Your task to perform on an android device: check storage Image 0: 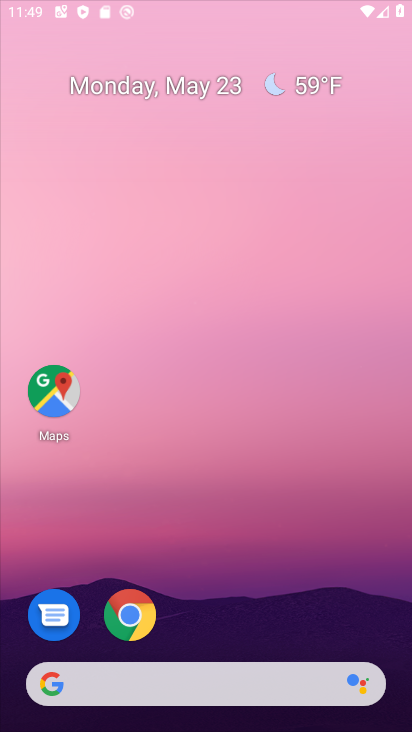
Step 0: press home button
Your task to perform on an android device: check storage Image 1: 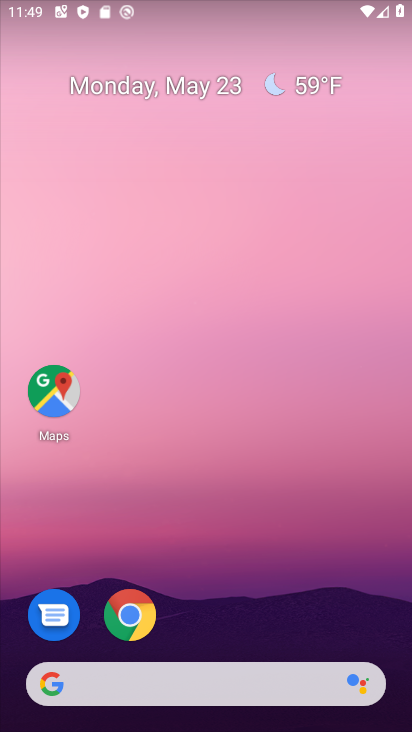
Step 1: drag from (257, 557) to (227, 22)
Your task to perform on an android device: check storage Image 2: 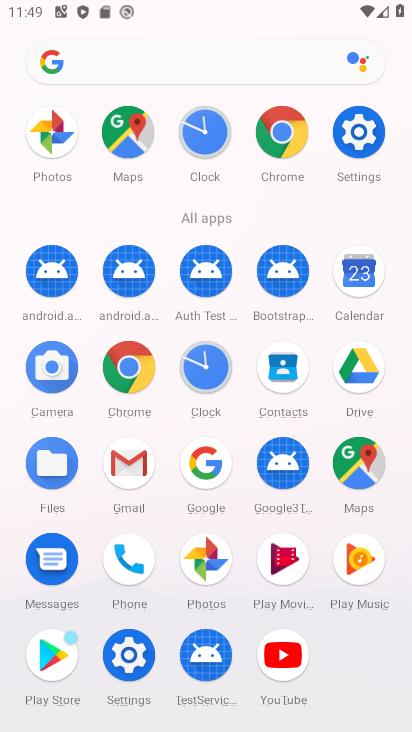
Step 2: drag from (14, 574) to (15, 223)
Your task to perform on an android device: check storage Image 3: 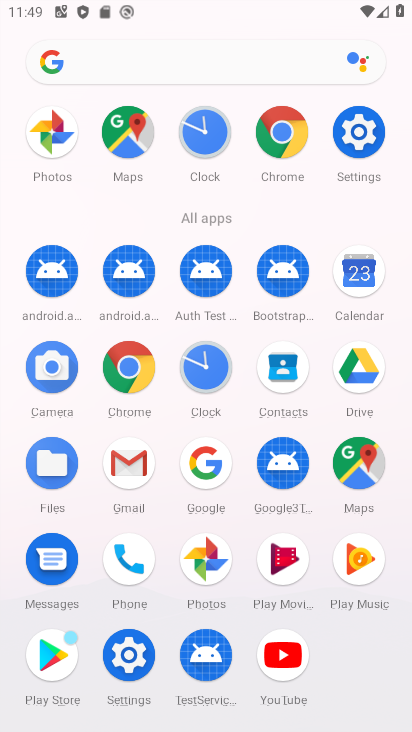
Step 3: click (129, 652)
Your task to perform on an android device: check storage Image 4: 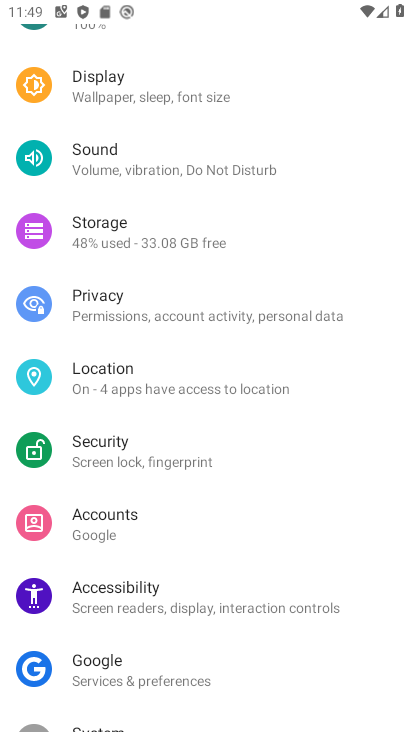
Step 4: drag from (207, 153) to (212, 559)
Your task to perform on an android device: check storage Image 5: 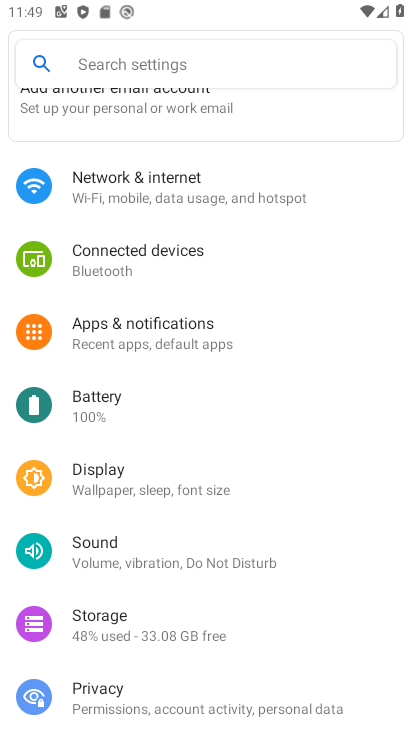
Step 5: drag from (200, 593) to (211, 179)
Your task to perform on an android device: check storage Image 6: 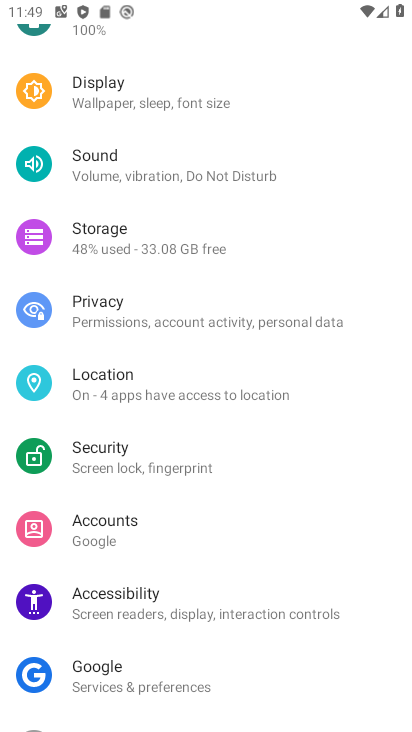
Step 6: drag from (155, 579) to (209, 159)
Your task to perform on an android device: check storage Image 7: 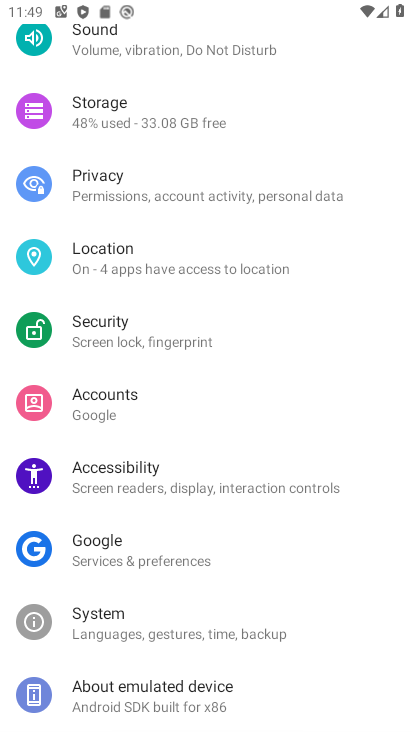
Step 7: drag from (209, 159) to (196, 552)
Your task to perform on an android device: check storage Image 8: 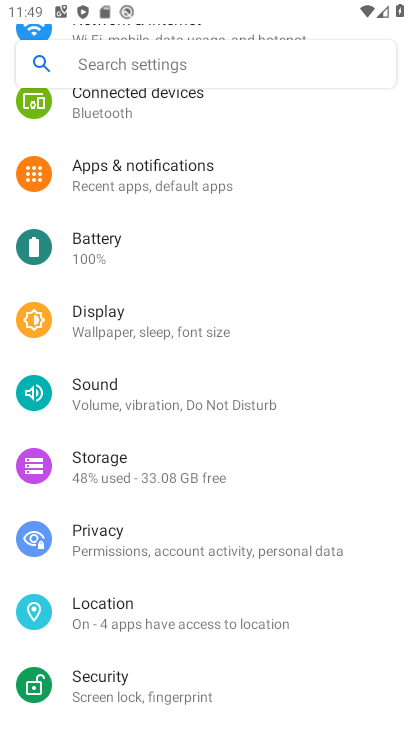
Step 8: click (140, 480)
Your task to perform on an android device: check storage Image 9: 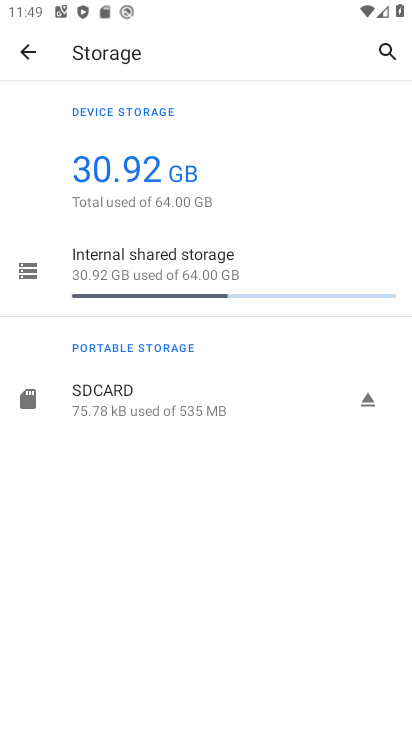
Step 9: task complete